Your task to perform on an android device: turn smart compose on in the gmail app Image 0: 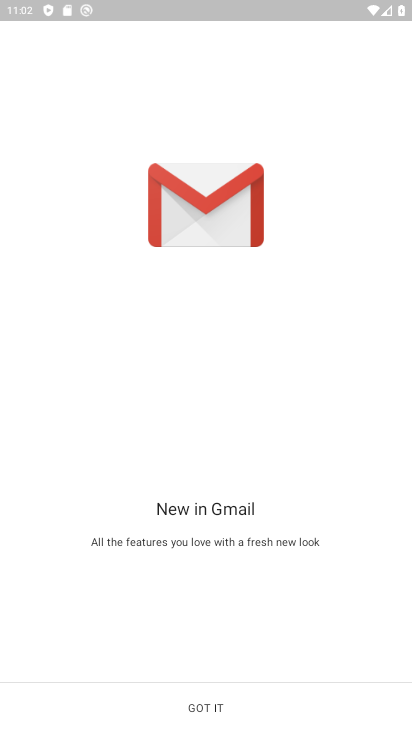
Step 0: press home button
Your task to perform on an android device: turn smart compose on in the gmail app Image 1: 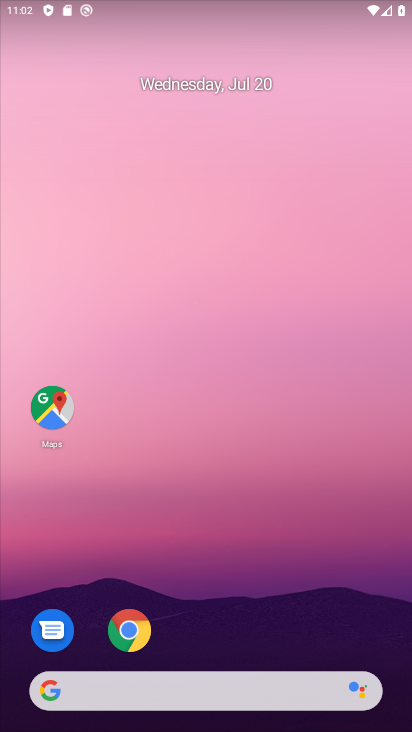
Step 1: drag from (301, 586) to (307, 227)
Your task to perform on an android device: turn smart compose on in the gmail app Image 2: 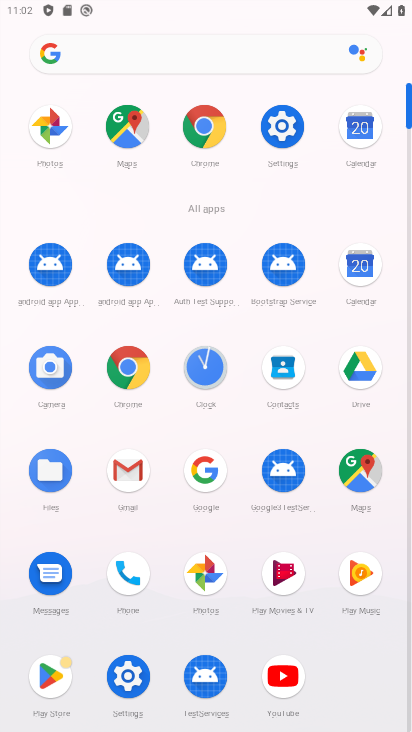
Step 2: click (121, 484)
Your task to perform on an android device: turn smart compose on in the gmail app Image 3: 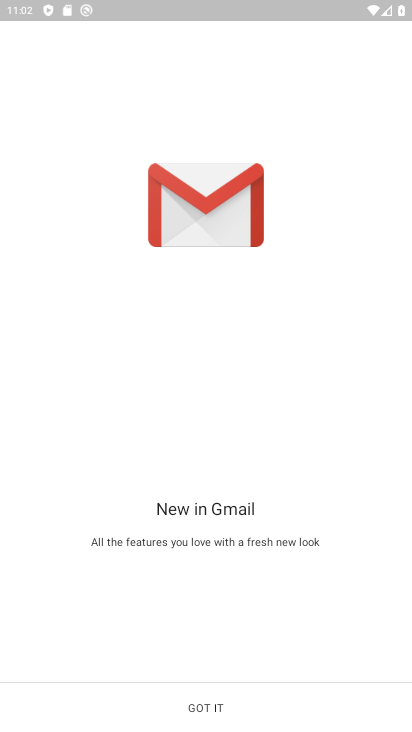
Step 3: click (222, 694)
Your task to perform on an android device: turn smart compose on in the gmail app Image 4: 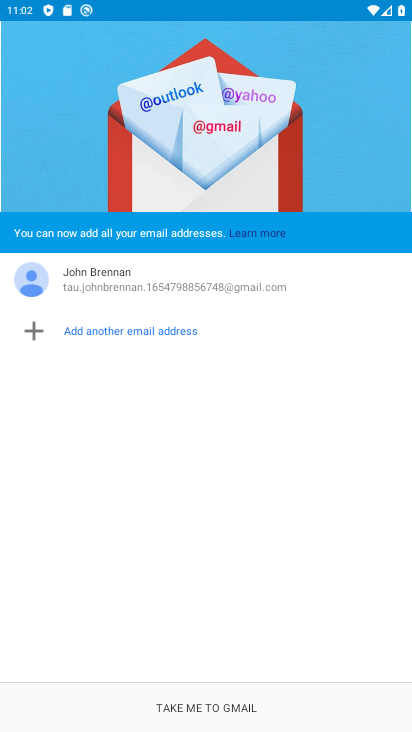
Step 4: click (217, 700)
Your task to perform on an android device: turn smart compose on in the gmail app Image 5: 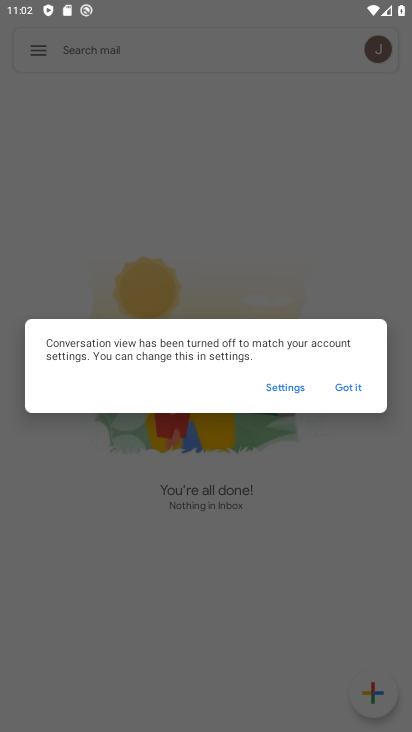
Step 5: click (350, 388)
Your task to perform on an android device: turn smart compose on in the gmail app Image 6: 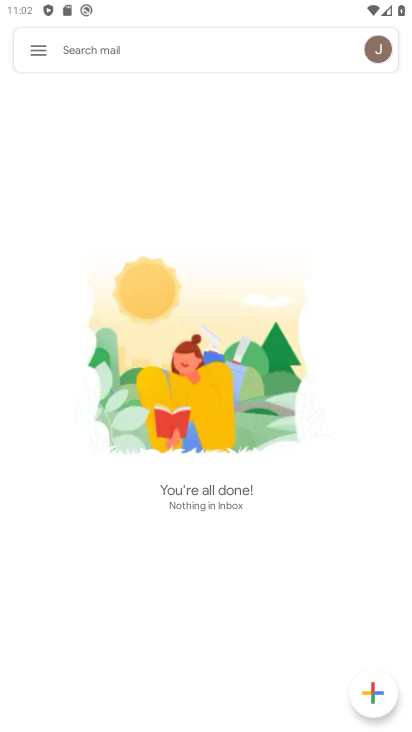
Step 6: click (35, 60)
Your task to perform on an android device: turn smart compose on in the gmail app Image 7: 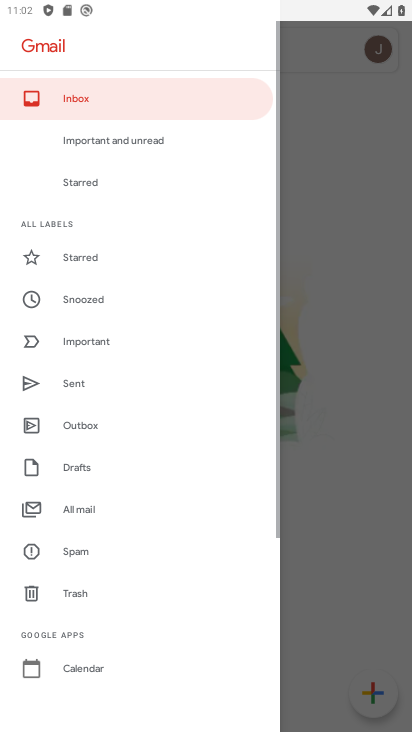
Step 7: click (89, 143)
Your task to perform on an android device: turn smart compose on in the gmail app Image 8: 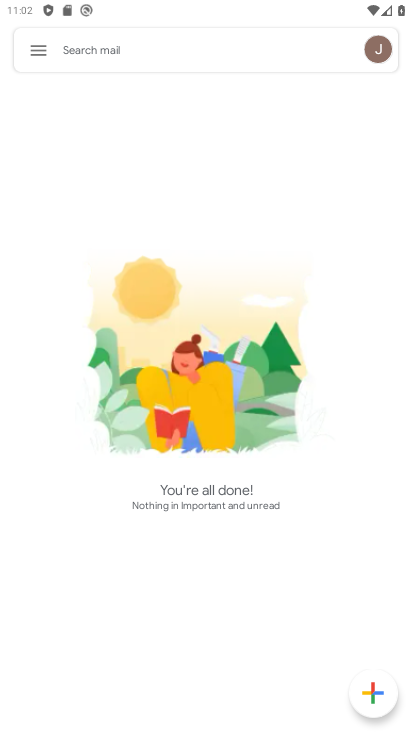
Step 8: click (38, 50)
Your task to perform on an android device: turn smart compose on in the gmail app Image 9: 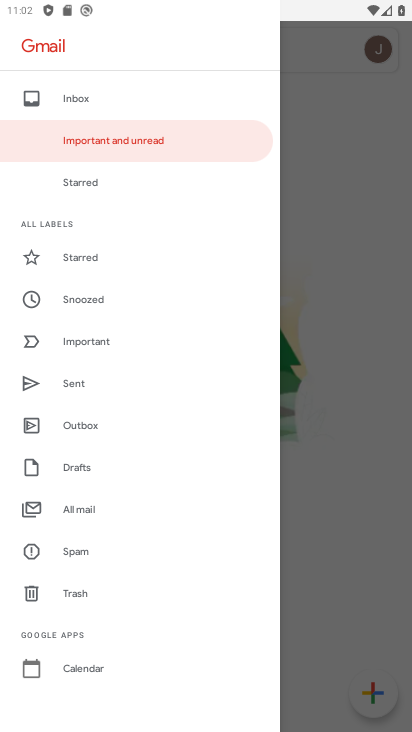
Step 9: drag from (99, 621) to (194, 361)
Your task to perform on an android device: turn smart compose on in the gmail app Image 10: 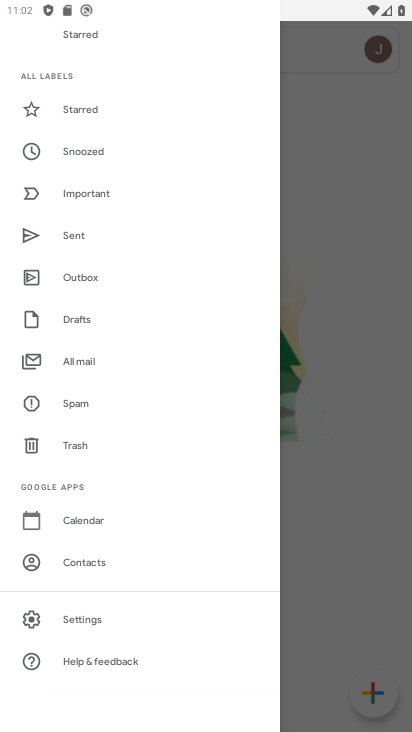
Step 10: click (108, 622)
Your task to perform on an android device: turn smart compose on in the gmail app Image 11: 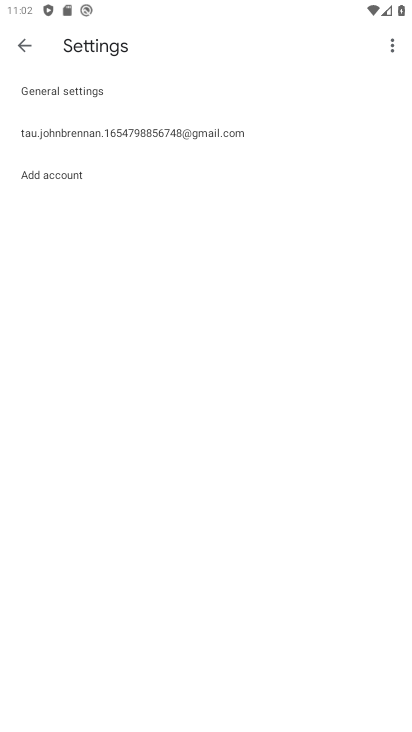
Step 11: click (148, 130)
Your task to perform on an android device: turn smart compose on in the gmail app Image 12: 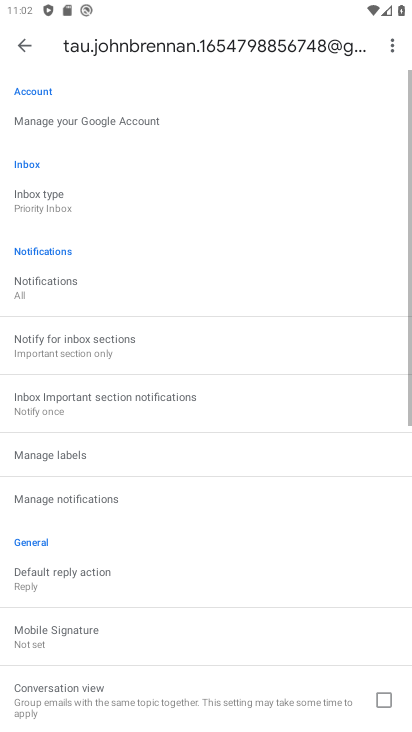
Step 12: drag from (181, 480) to (181, 191)
Your task to perform on an android device: turn smart compose on in the gmail app Image 13: 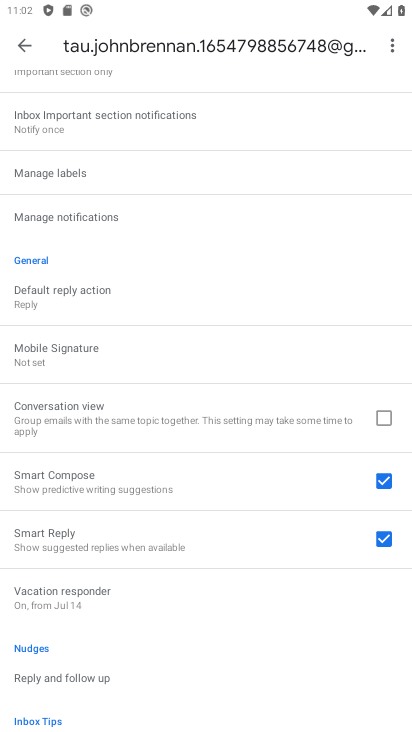
Step 13: click (341, 494)
Your task to perform on an android device: turn smart compose on in the gmail app Image 14: 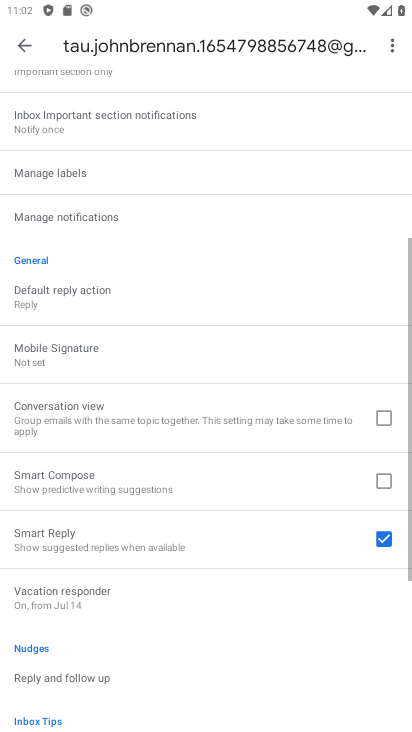
Step 14: click (345, 498)
Your task to perform on an android device: turn smart compose on in the gmail app Image 15: 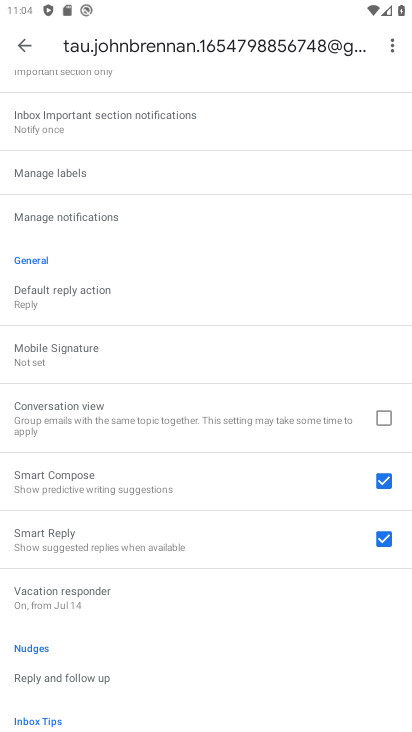
Step 15: task complete